Your task to perform on an android device: What is the news today? Image 0: 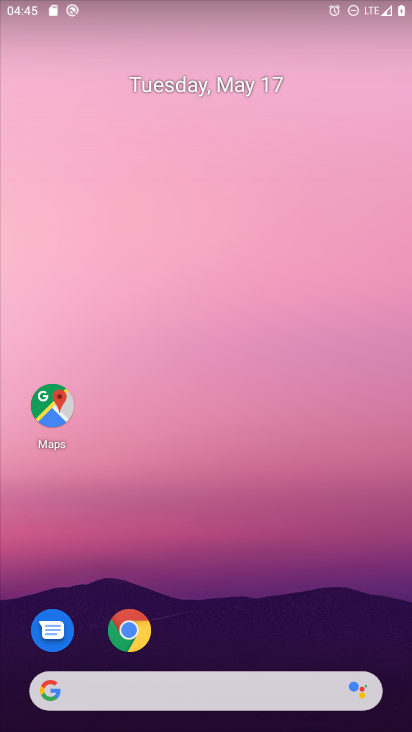
Step 0: click (203, 698)
Your task to perform on an android device: What is the news today? Image 1: 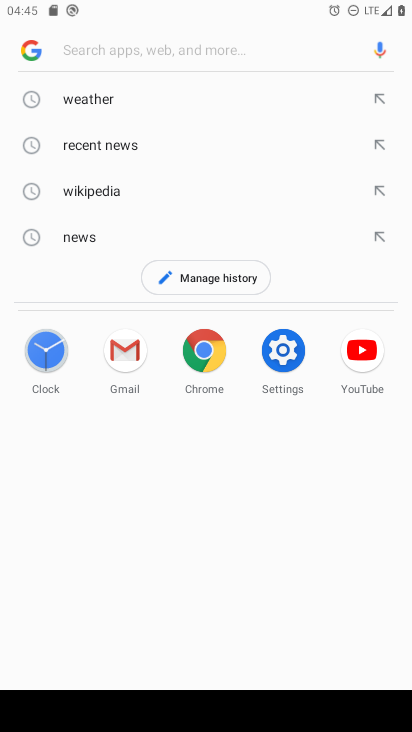
Step 1: type "news today"
Your task to perform on an android device: What is the news today? Image 2: 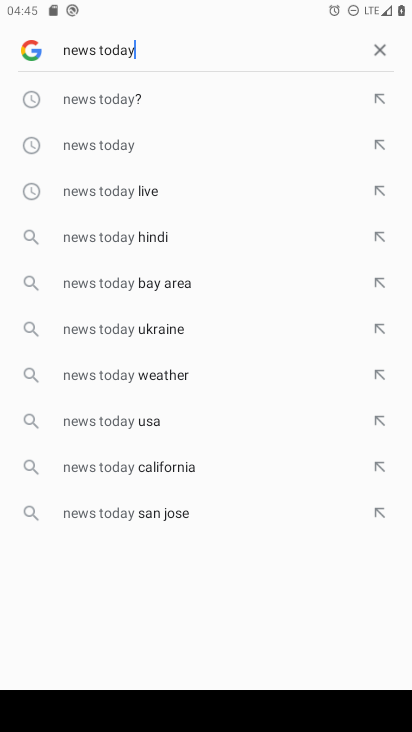
Step 2: click (135, 95)
Your task to perform on an android device: What is the news today? Image 3: 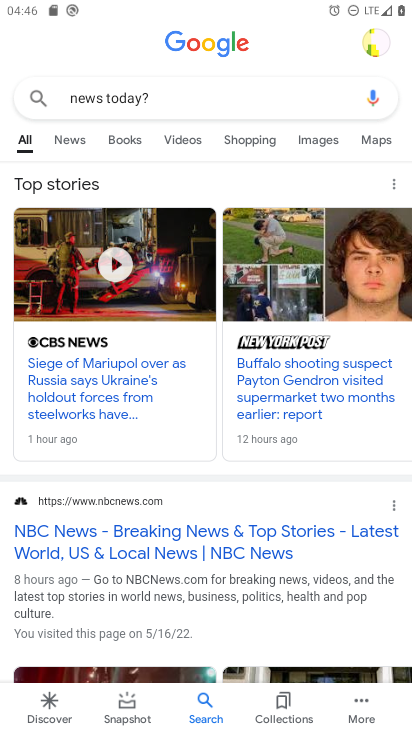
Step 3: task complete